Your task to perform on an android device: Open Google Chrome Image 0: 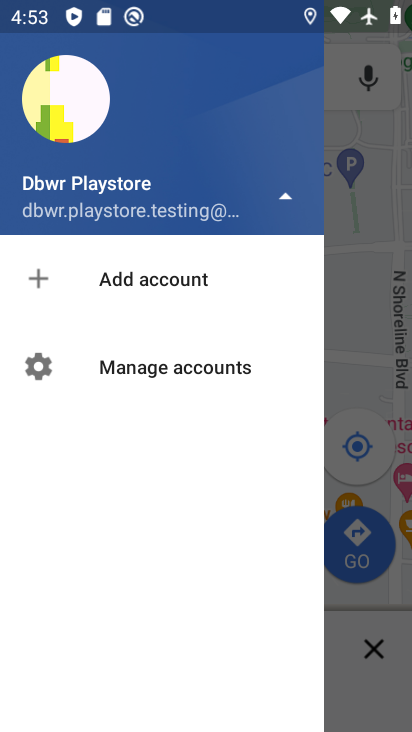
Step 0: drag from (295, 687) to (221, 263)
Your task to perform on an android device: Open Google Chrome Image 1: 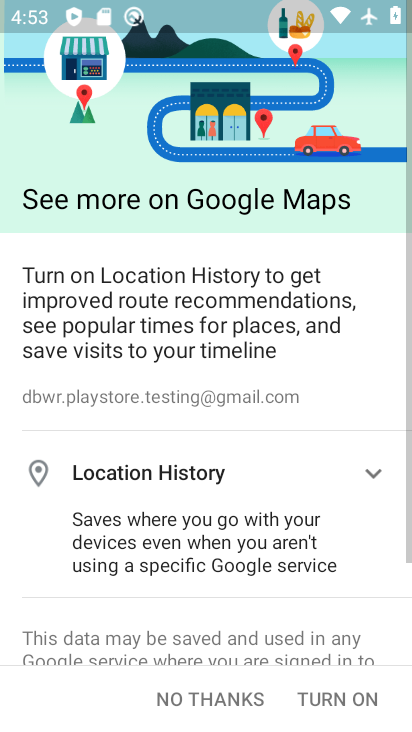
Step 1: press back button
Your task to perform on an android device: Open Google Chrome Image 2: 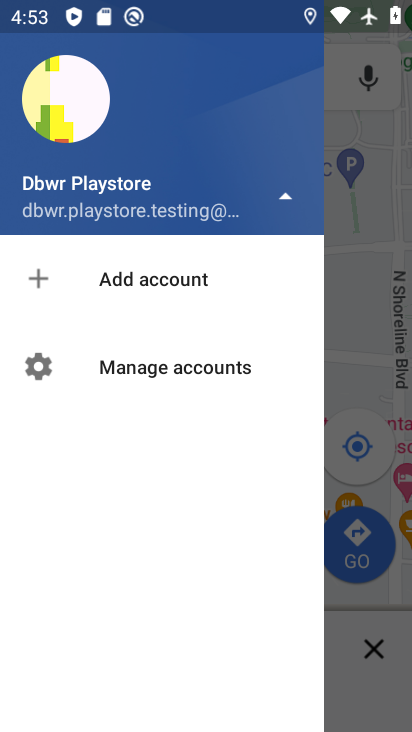
Step 2: click (346, 342)
Your task to perform on an android device: Open Google Chrome Image 3: 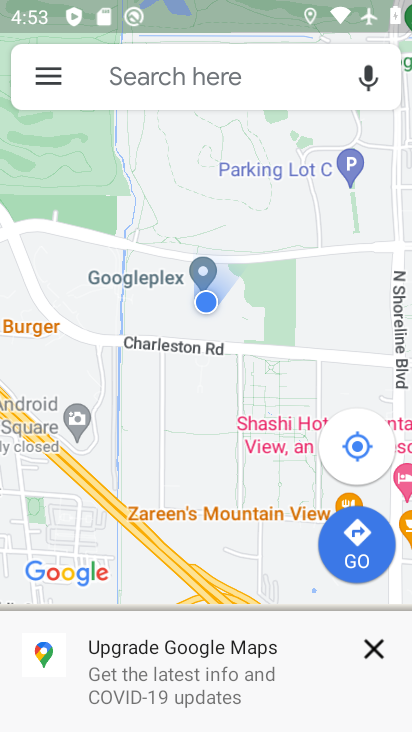
Step 3: click (361, 648)
Your task to perform on an android device: Open Google Chrome Image 4: 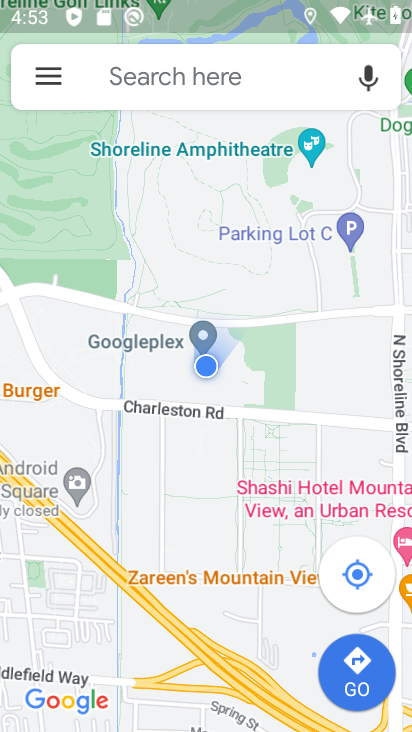
Step 4: press home button
Your task to perform on an android device: Open Google Chrome Image 5: 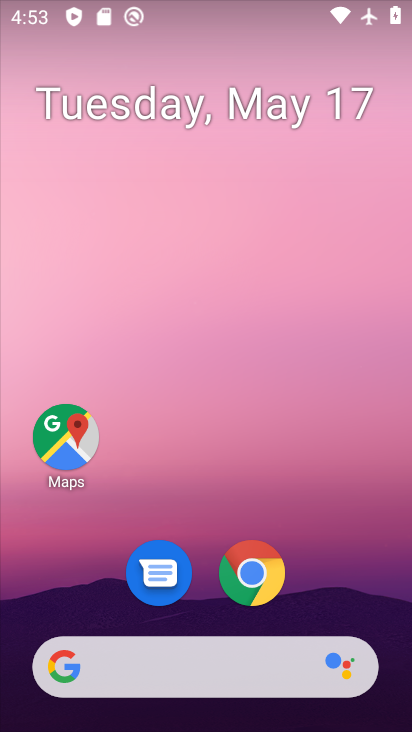
Step 5: drag from (360, 655) to (284, 270)
Your task to perform on an android device: Open Google Chrome Image 6: 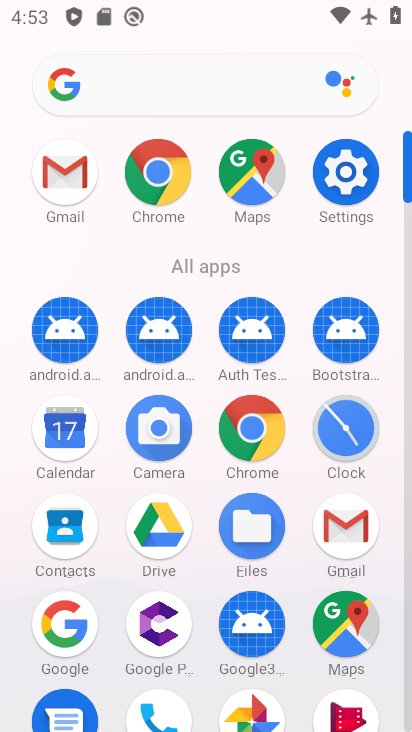
Step 6: click (56, 620)
Your task to perform on an android device: Open Google Chrome Image 7: 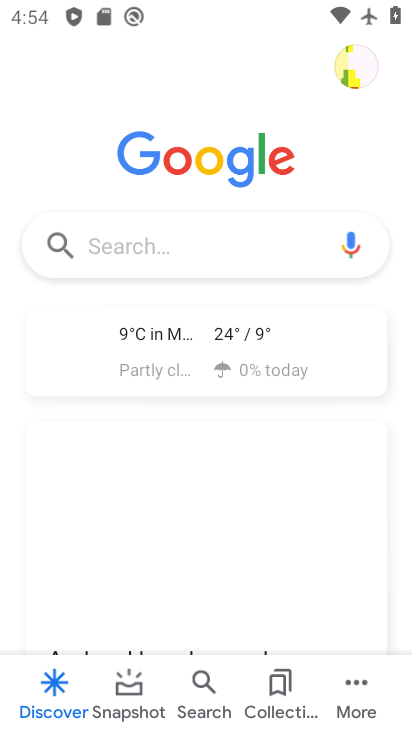
Step 7: task complete